Your task to perform on an android device: Open calendar and show me the third week of next month Image 0: 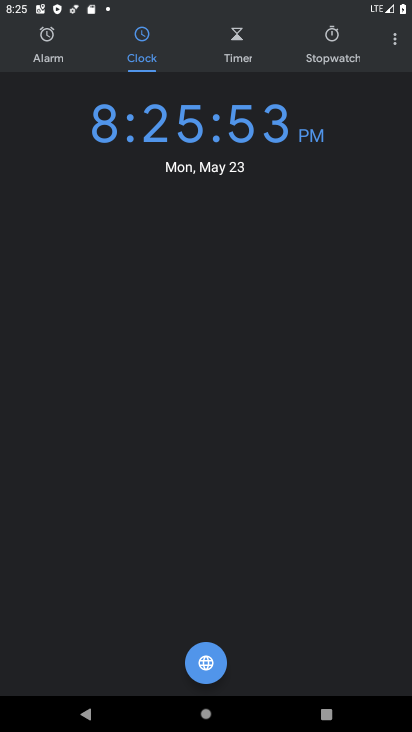
Step 0: press home button
Your task to perform on an android device: Open calendar and show me the third week of next month Image 1: 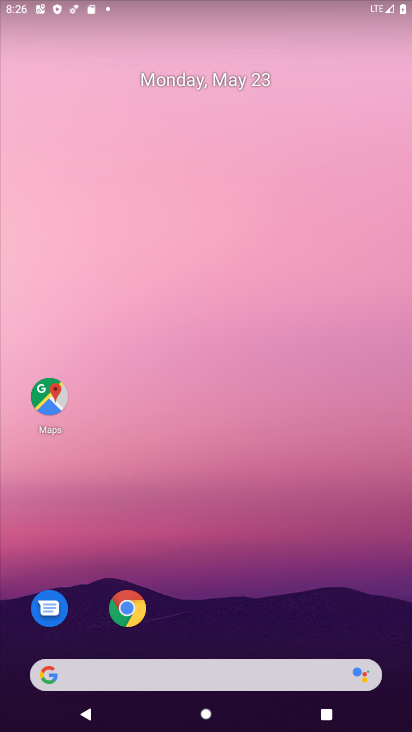
Step 1: press home button
Your task to perform on an android device: Open calendar and show me the third week of next month Image 2: 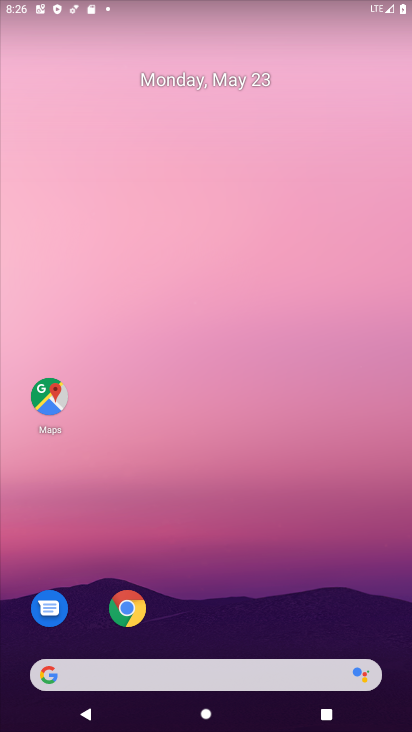
Step 2: press home button
Your task to perform on an android device: Open calendar and show me the third week of next month Image 3: 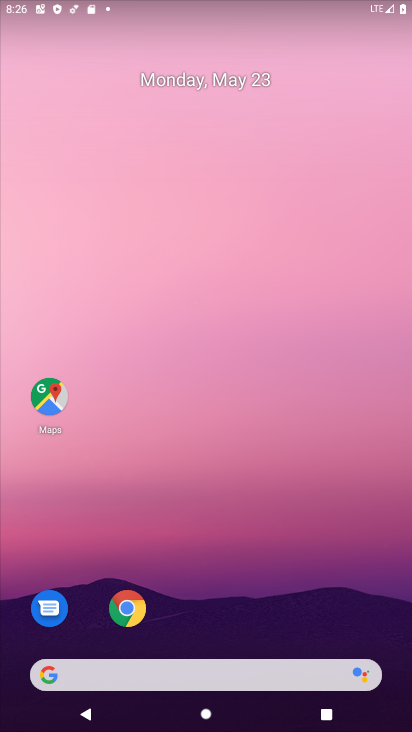
Step 3: drag from (183, 667) to (205, 183)
Your task to perform on an android device: Open calendar and show me the third week of next month Image 4: 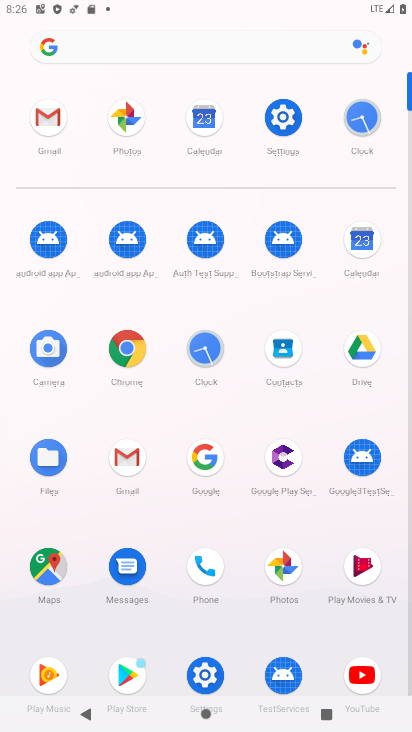
Step 4: click (360, 250)
Your task to perform on an android device: Open calendar and show me the third week of next month Image 5: 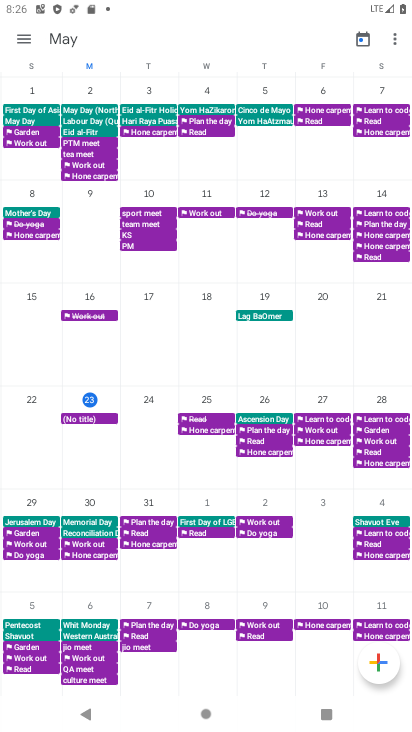
Step 5: task complete